Your task to perform on an android device: check storage Image 0: 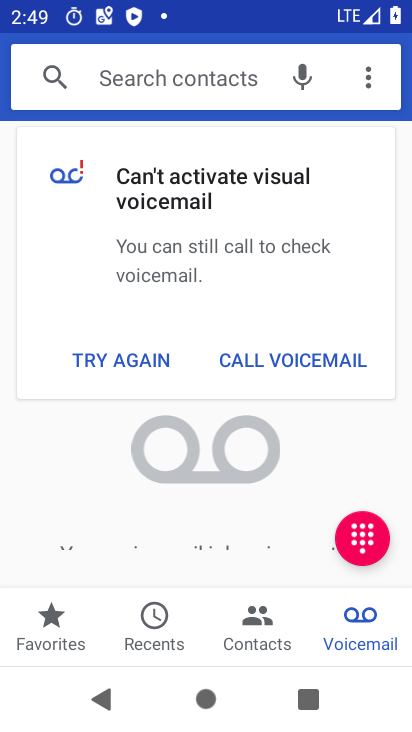
Step 0: press home button
Your task to perform on an android device: check storage Image 1: 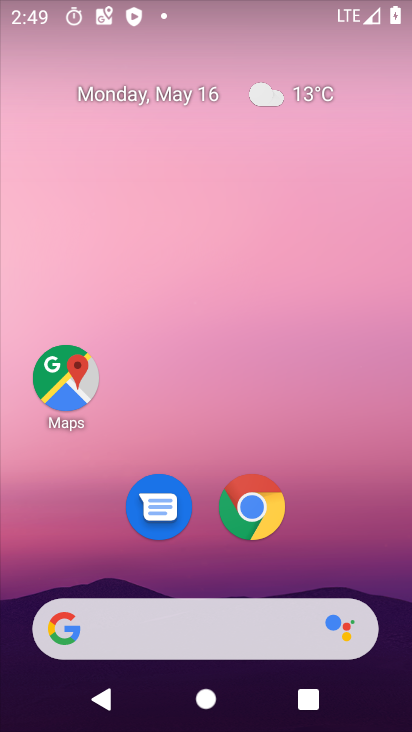
Step 1: drag from (359, 564) to (368, 83)
Your task to perform on an android device: check storage Image 2: 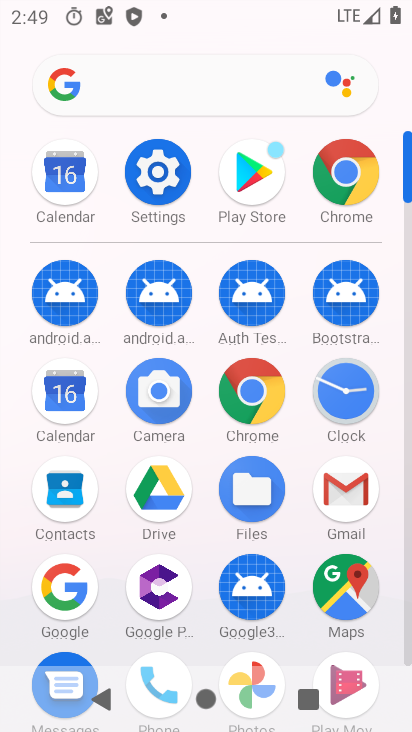
Step 2: click (173, 183)
Your task to perform on an android device: check storage Image 3: 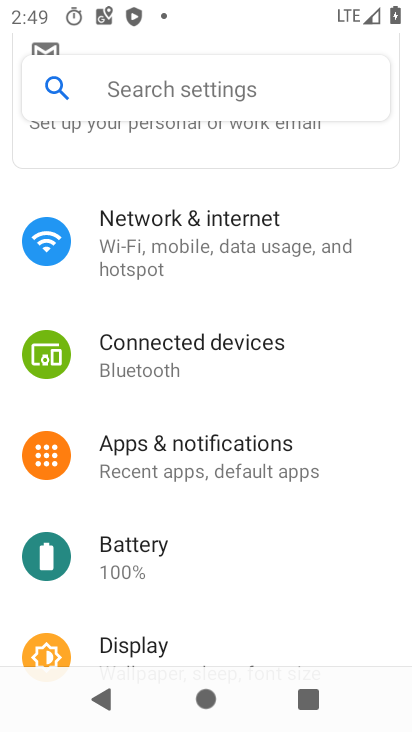
Step 3: drag from (342, 559) to (331, 428)
Your task to perform on an android device: check storage Image 4: 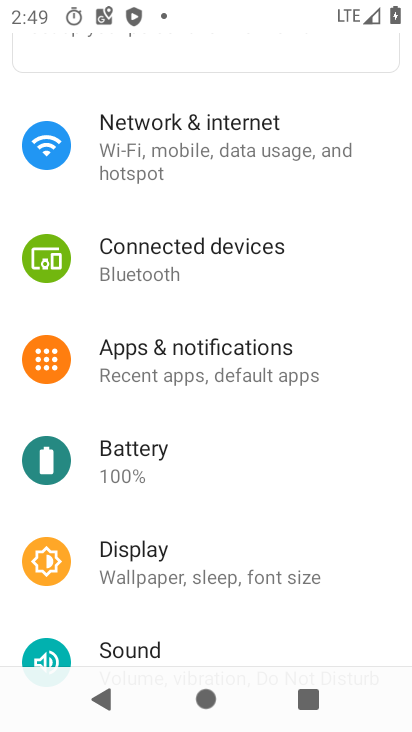
Step 4: drag from (353, 600) to (353, 449)
Your task to perform on an android device: check storage Image 5: 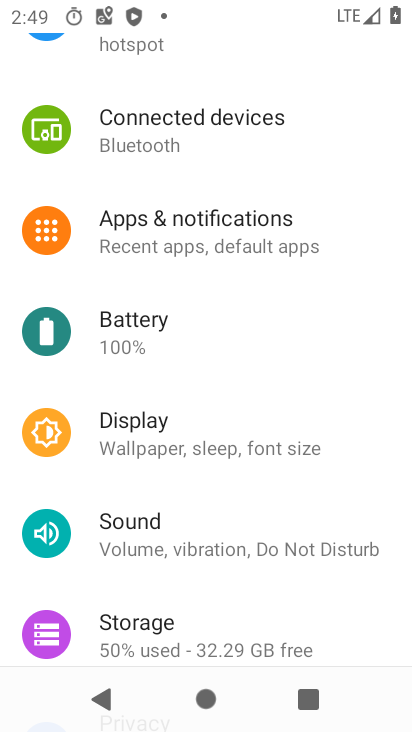
Step 5: drag from (350, 609) to (350, 450)
Your task to perform on an android device: check storage Image 6: 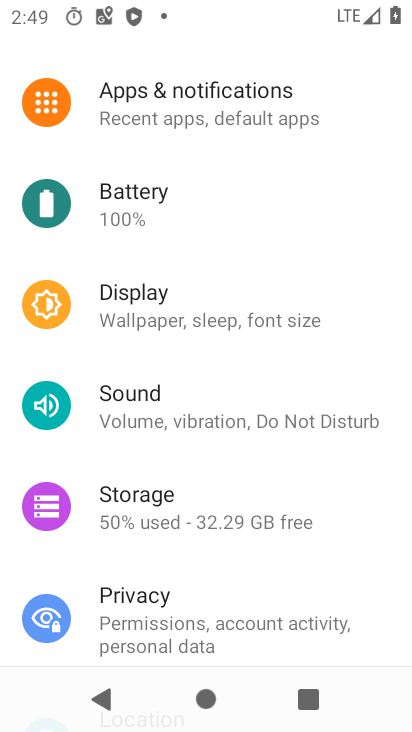
Step 6: drag from (366, 630) to (364, 452)
Your task to perform on an android device: check storage Image 7: 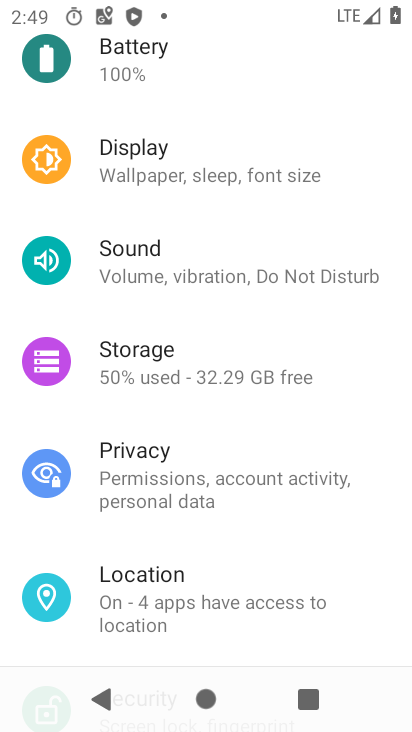
Step 7: drag from (352, 635) to (350, 397)
Your task to perform on an android device: check storage Image 8: 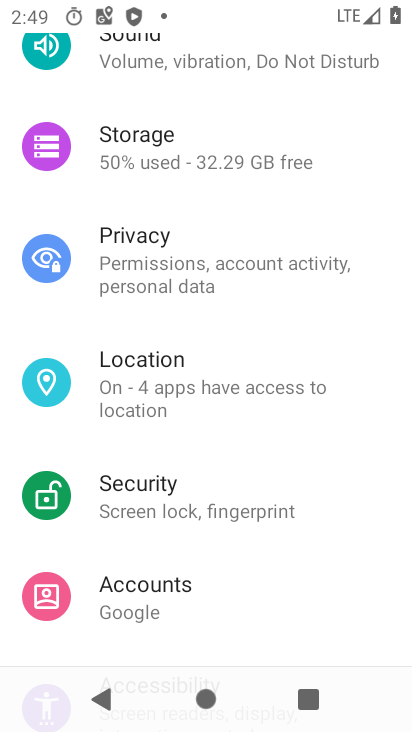
Step 8: drag from (359, 633) to (353, 459)
Your task to perform on an android device: check storage Image 9: 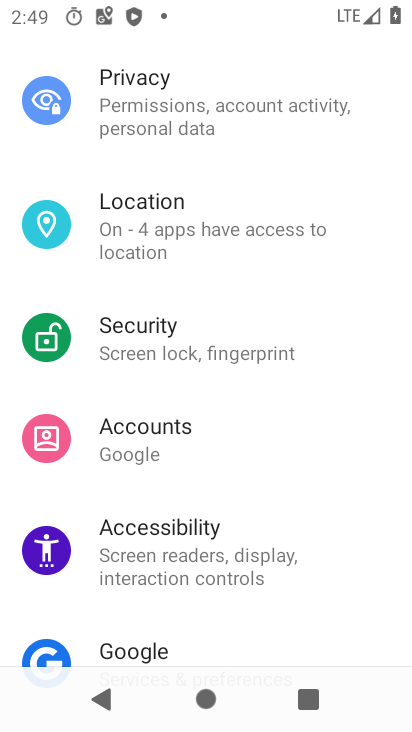
Step 9: drag from (372, 599) to (369, 432)
Your task to perform on an android device: check storage Image 10: 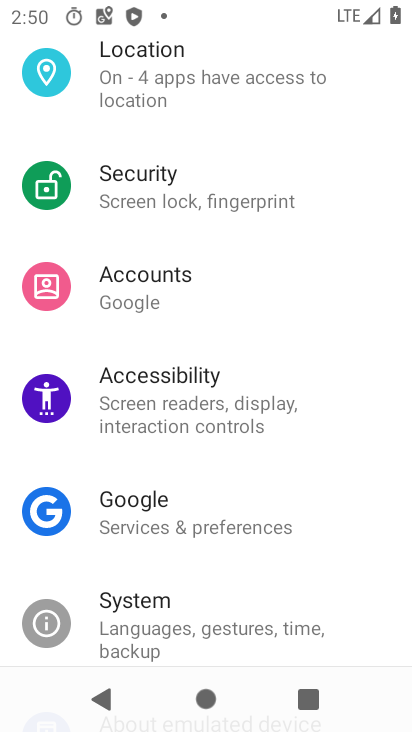
Step 10: drag from (340, 614) to (339, 420)
Your task to perform on an android device: check storage Image 11: 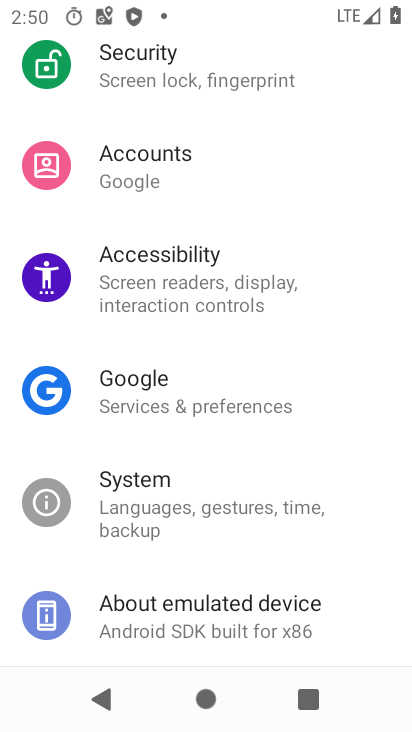
Step 11: drag from (357, 615) to (355, 439)
Your task to perform on an android device: check storage Image 12: 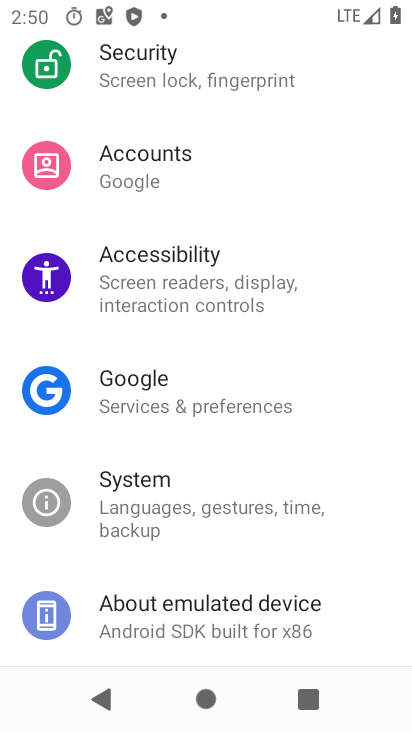
Step 12: drag from (350, 286) to (338, 457)
Your task to perform on an android device: check storage Image 13: 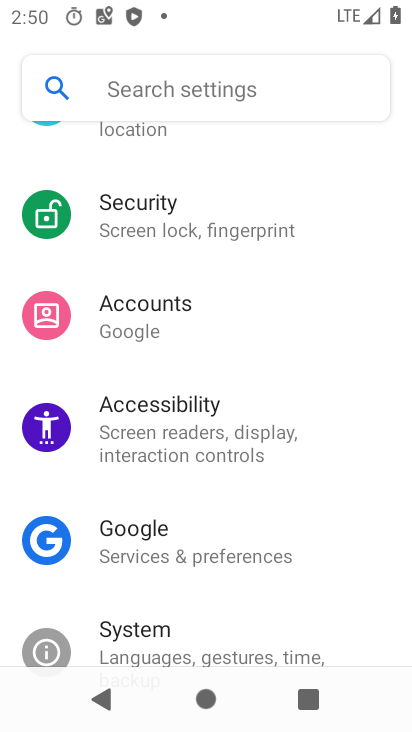
Step 13: drag from (333, 287) to (334, 434)
Your task to perform on an android device: check storage Image 14: 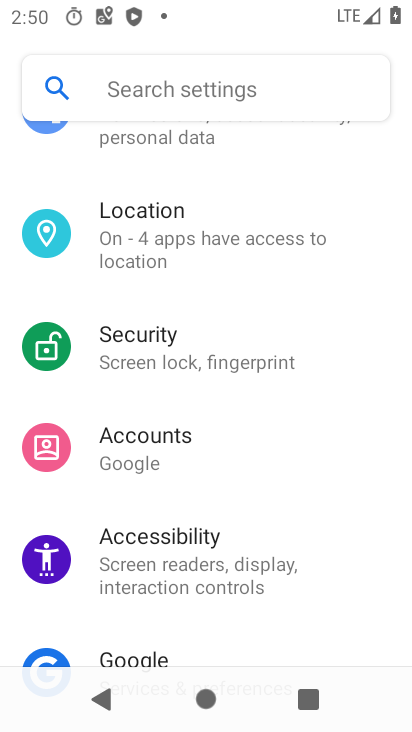
Step 14: drag from (343, 285) to (353, 416)
Your task to perform on an android device: check storage Image 15: 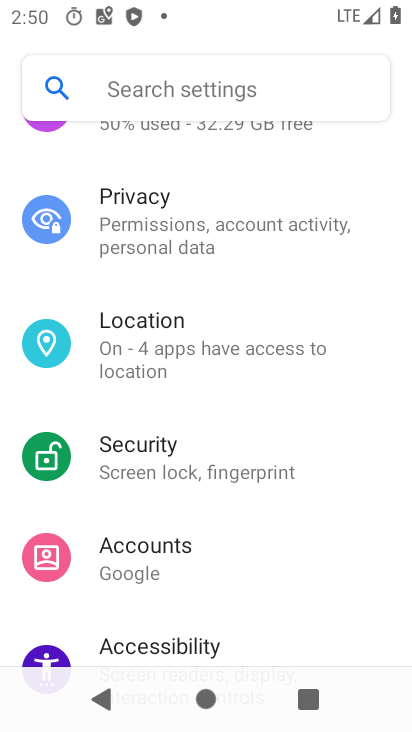
Step 15: drag from (360, 194) to (367, 344)
Your task to perform on an android device: check storage Image 16: 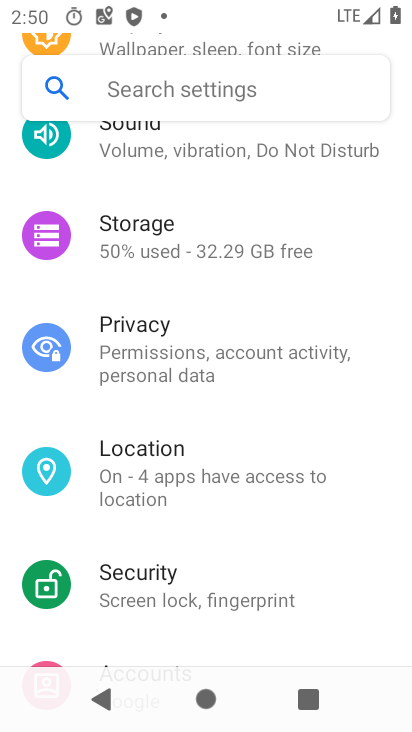
Step 16: drag from (368, 246) to (366, 384)
Your task to perform on an android device: check storage Image 17: 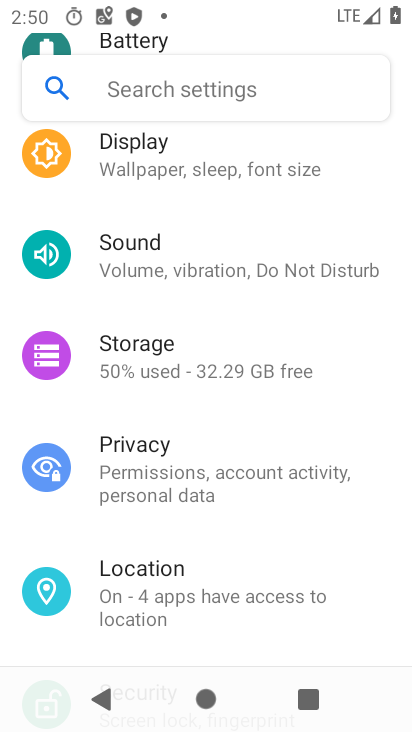
Step 17: drag from (358, 191) to (353, 369)
Your task to perform on an android device: check storage Image 18: 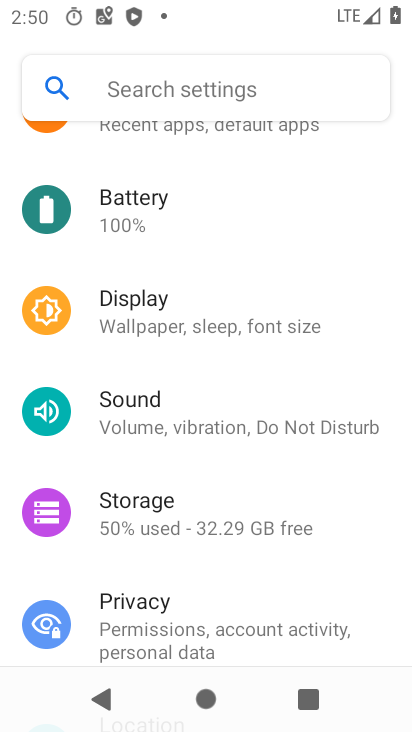
Step 18: click (195, 515)
Your task to perform on an android device: check storage Image 19: 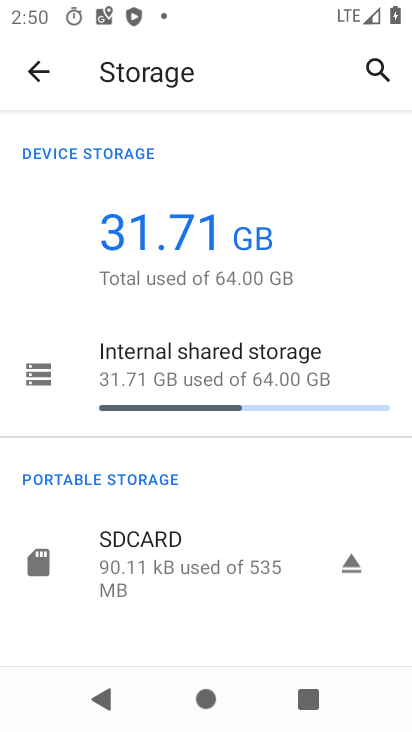
Step 19: task complete